Your task to perform on an android device: star an email in the gmail app Image 0: 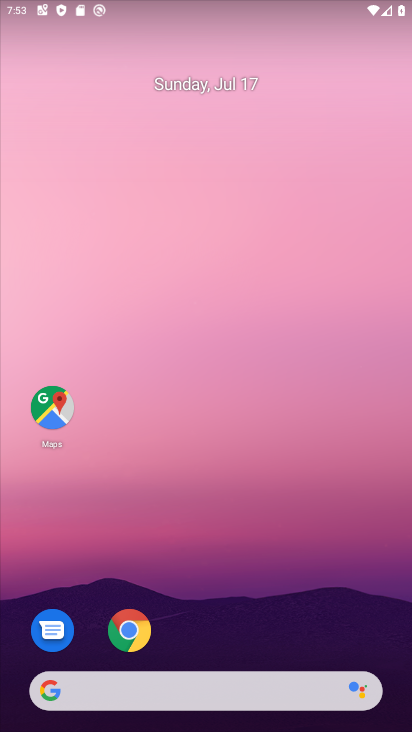
Step 0: drag from (152, 519) to (22, 10)
Your task to perform on an android device: star an email in the gmail app Image 1: 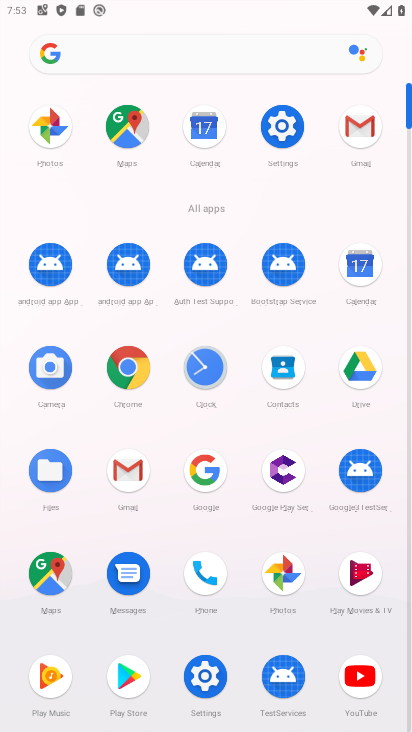
Step 1: click (362, 123)
Your task to perform on an android device: star an email in the gmail app Image 2: 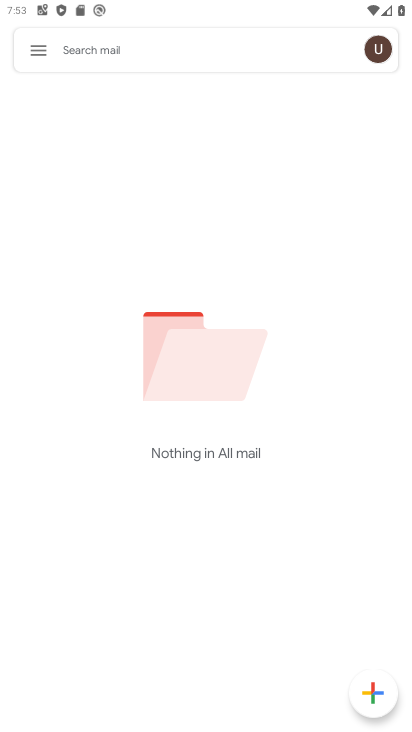
Step 2: task complete